Your task to perform on an android device: Open calendar and show me the first week of next month Image 0: 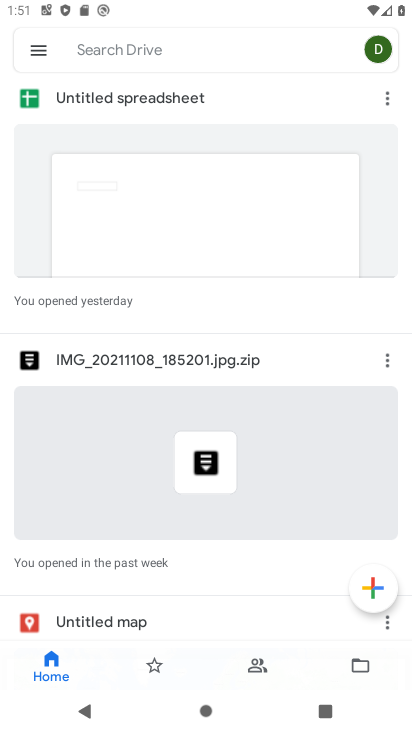
Step 0: press home button
Your task to perform on an android device: Open calendar and show me the first week of next month Image 1: 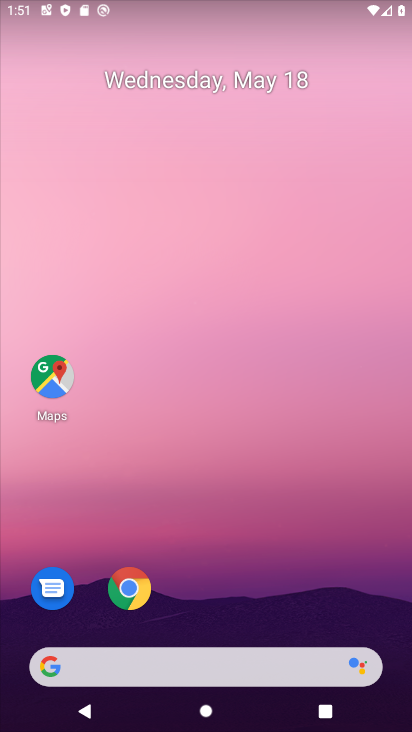
Step 1: drag from (301, 606) to (344, 117)
Your task to perform on an android device: Open calendar and show me the first week of next month Image 2: 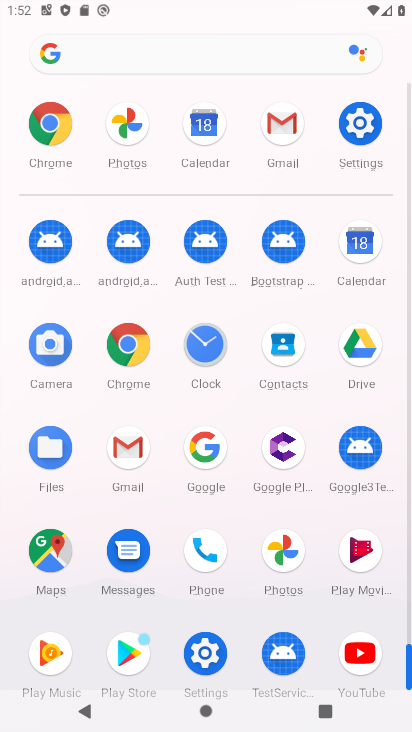
Step 2: click (369, 245)
Your task to perform on an android device: Open calendar and show me the first week of next month Image 3: 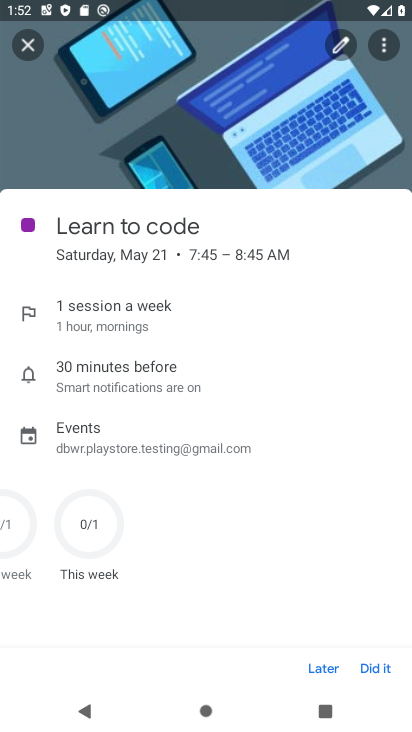
Step 3: click (32, 47)
Your task to perform on an android device: Open calendar and show me the first week of next month Image 4: 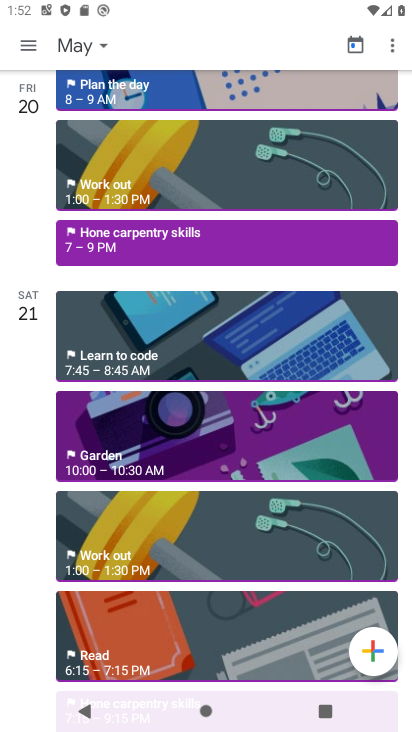
Step 4: click (95, 42)
Your task to perform on an android device: Open calendar and show me the first week of next month Image 5: 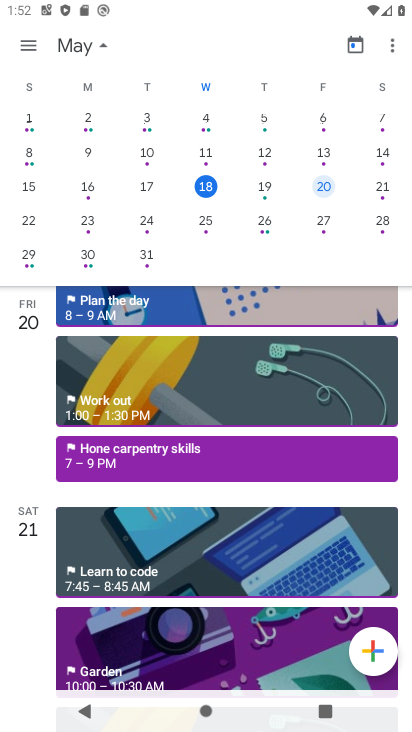
Step 5: drag from (370, 101) to (17, 107)
Your task to perform on an android device: Open calendar and show me the first week of next month Image 6: 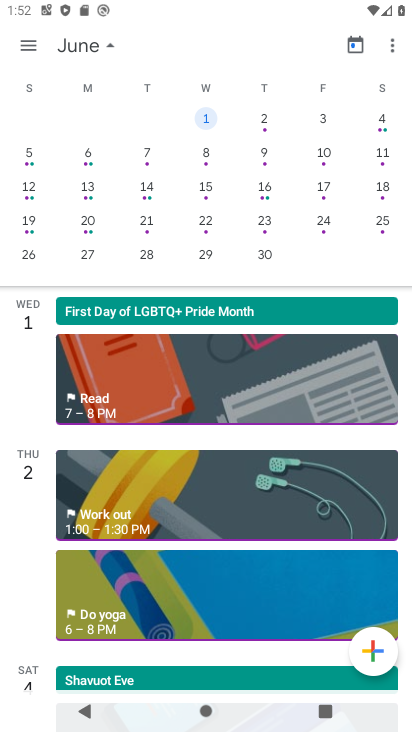
Step 6: click (263, 117)
Your task to perform on an android device: Open calendar and show me the first week of next month Image 7: 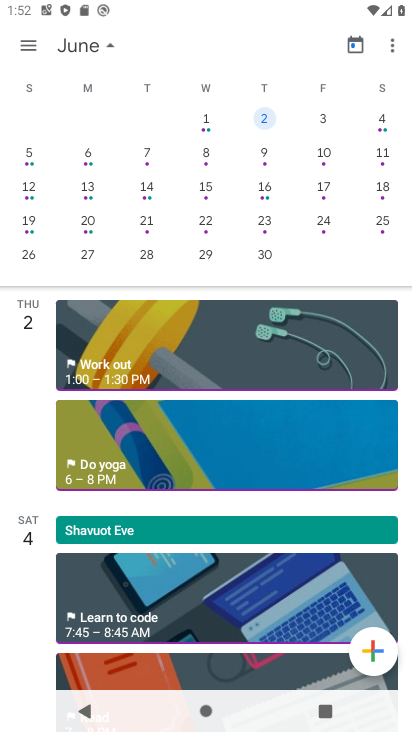
Step 7: task complete